Your task to perform on an android device: Go to calendar. Show me events next week Image 0: 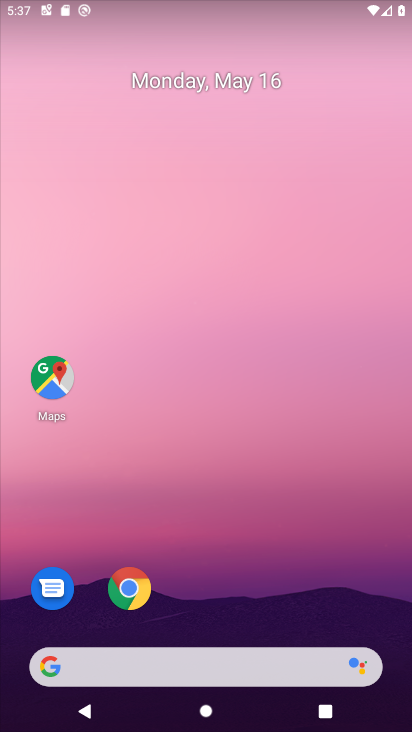
Step 0: click (245, 79)
Your task to perform on an android device: Go to calendar. Show me events next week Image 1: 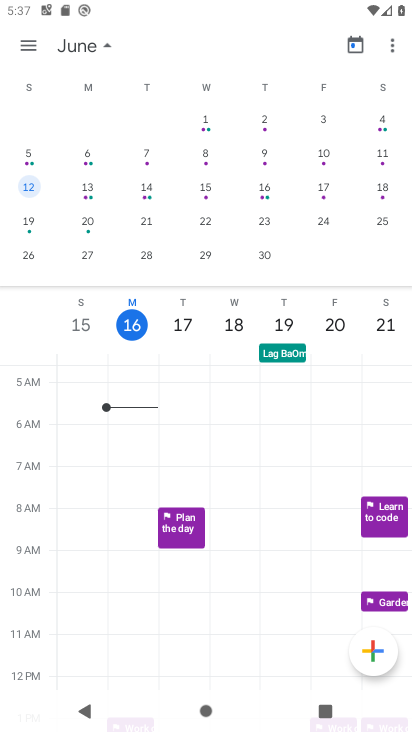
Step 1: click (102, 43)
Your task to perform on an android device: Go to calendar. Show me events next week Image 2: 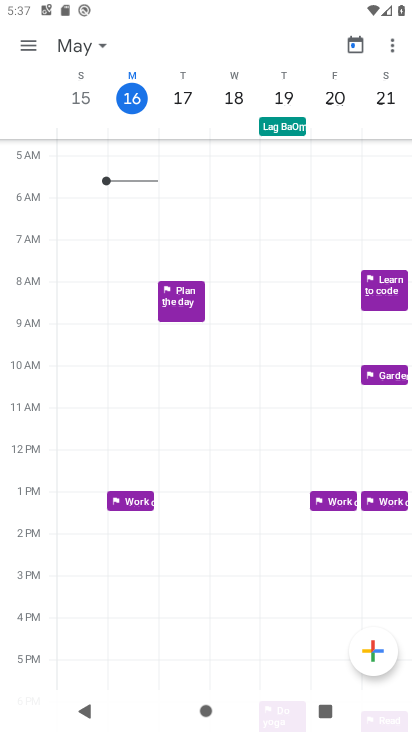
Step 2: click (91, 51)
Your task to perform on an android device: Go to calendar. Show me events next week Image 3: 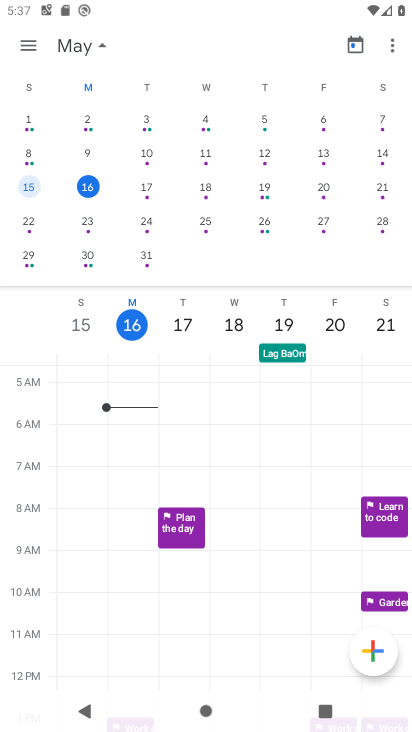
Step 3: drag from (53, 198) to (396, 174)
Your task to perform on an android device: Go to calendar. Show me events next week Image 4: 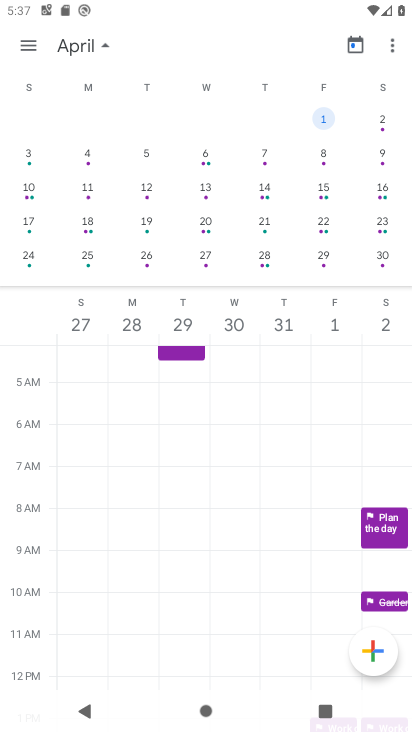
Step 4: drag from (359, 175) to (0, 160)
Your task to perform on an android device: Go to calendar. Show me events next week Image 5: 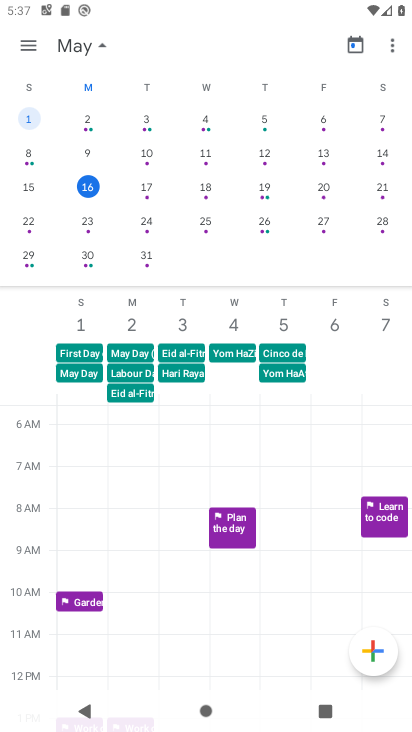
Step 5: click (36, 227)
Your task to perform on an android device: Go to calendar. Show me events next week Image 6: 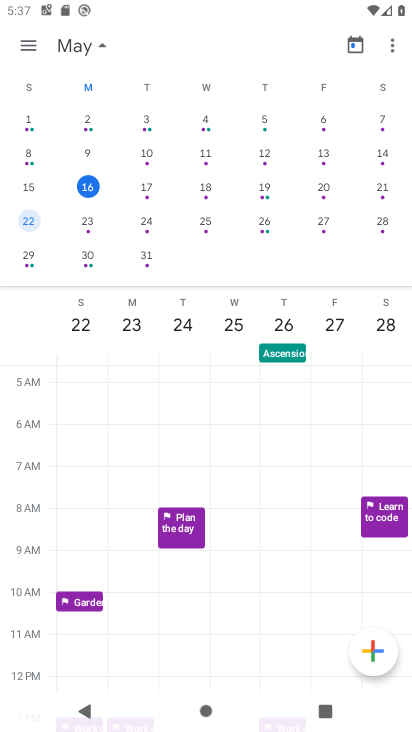
Step 6: task complete